Your task to perform on an android device: open a bookmark in the chrome app Image 0: 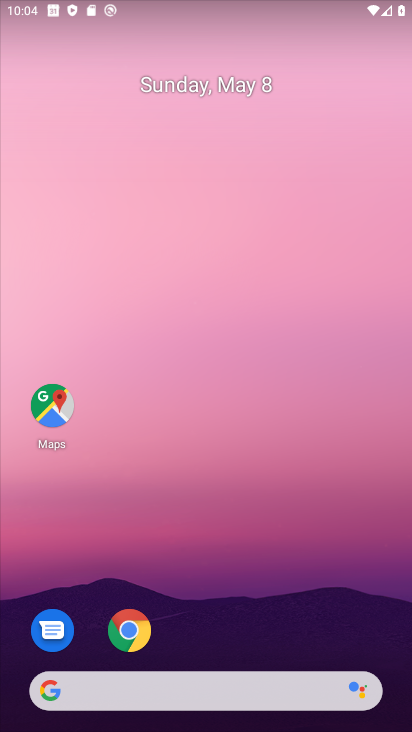
Step 0: click (125, 630)
Your task to perform on an android device: open a bookmark in the chrome app Image 1: 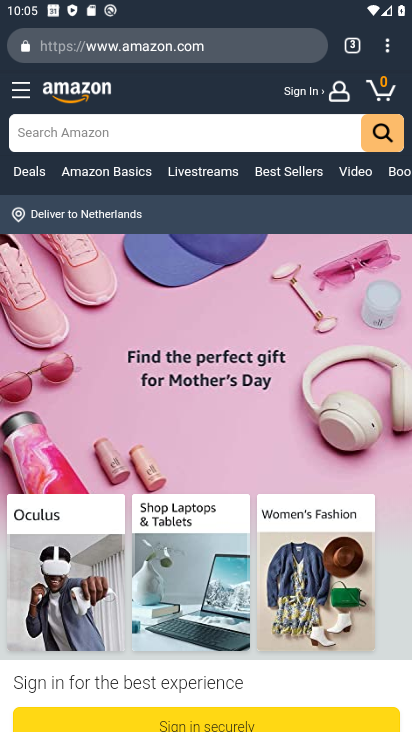
Step 1: click (389, 57)
Your task to perform on an android device: open a bookmark in the chrome app Image 2: 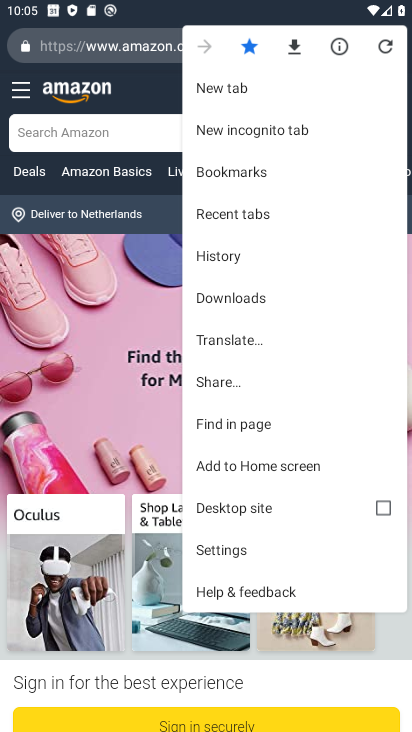
Step 2: click (242, 168)
Your task to perform on an android device: open a bookmark in the chrome app Image 3: 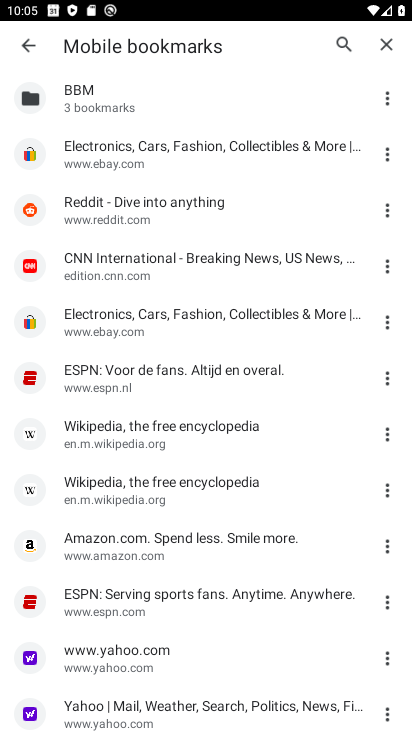
Step 3: click (166, 202)
Your task to perform on an android device: open a bookmark in the chrome app Image 4: 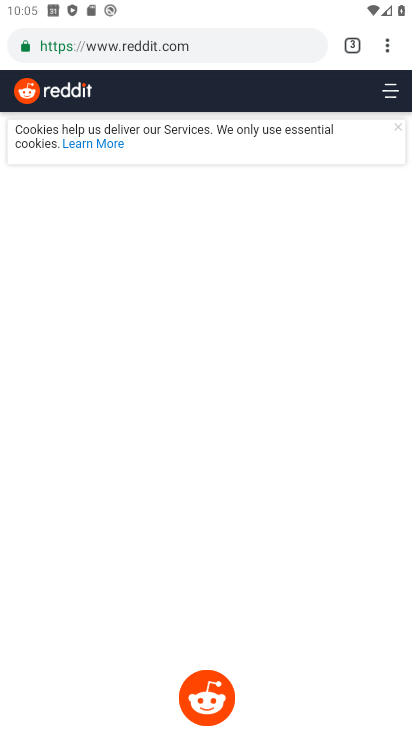
Step 4: task complete